Your task to perform on an android device: Open location settings Image 0: 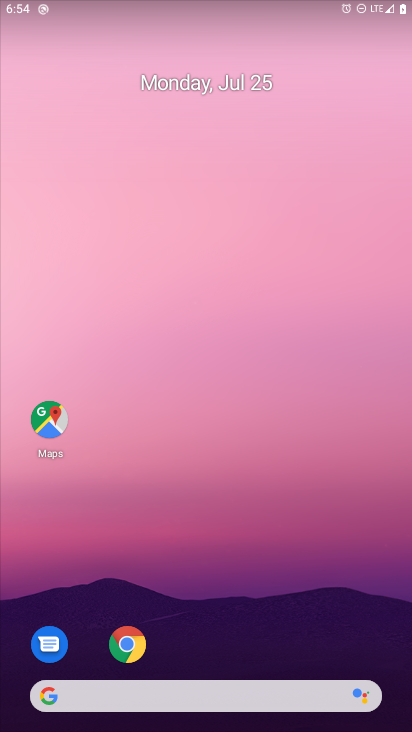
Step 0: press home button
Your task to perform on an android device: Open location settings Image 1: 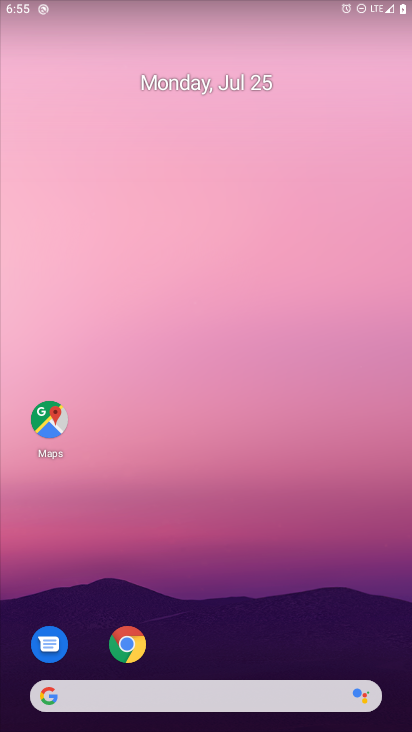
Step 1: drag from (251, 647) to (277, 143)
Your task to perform on an android device: Open location settings Image 2: 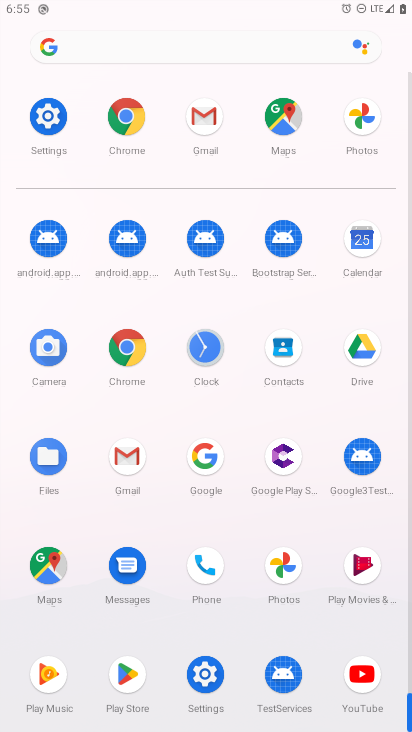
Step 2: click (47, 124)
Your task to perform on an android device: Open location settings Image 3: 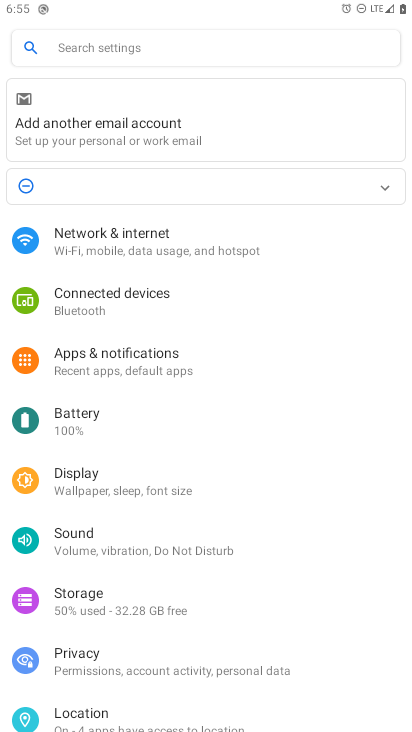
Step 3: click (92, 714)
Your task to perform on an android device: Open location settings Image 4: 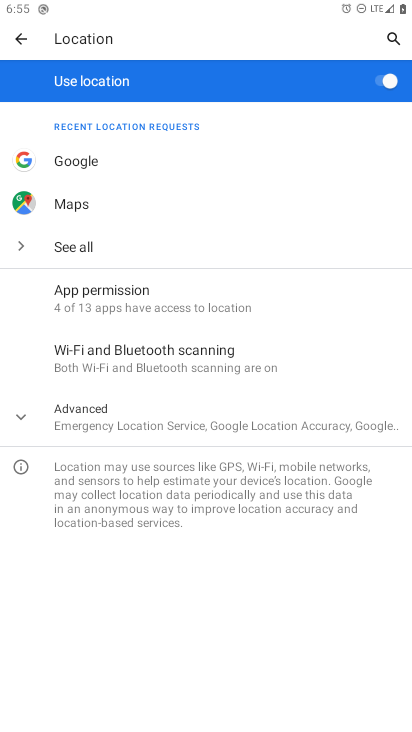
Step 4: task complete